Your task to perform on an android device: Open the map Image 0: 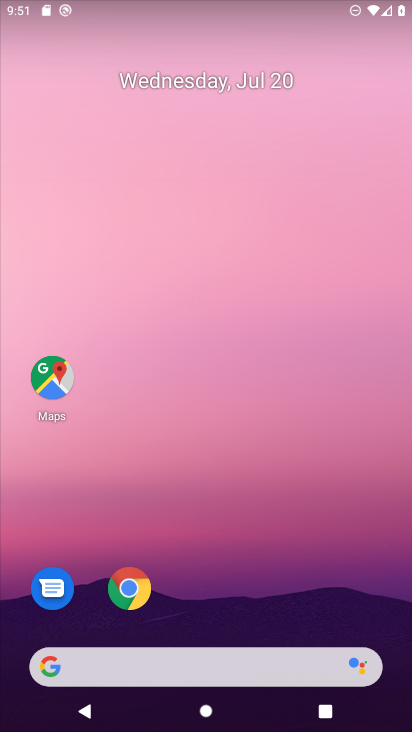
Step 0: press home button
Your task to perform on an android device: Open the map Image 1: 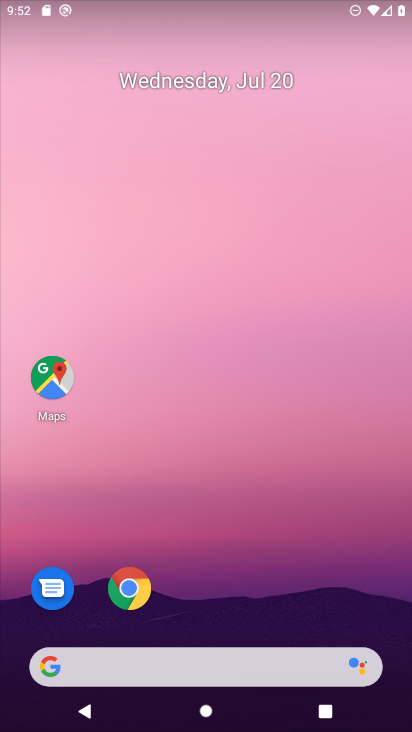
Step 1: click (51, 388)
Your task to perform on an android device: Open the map Image 2: 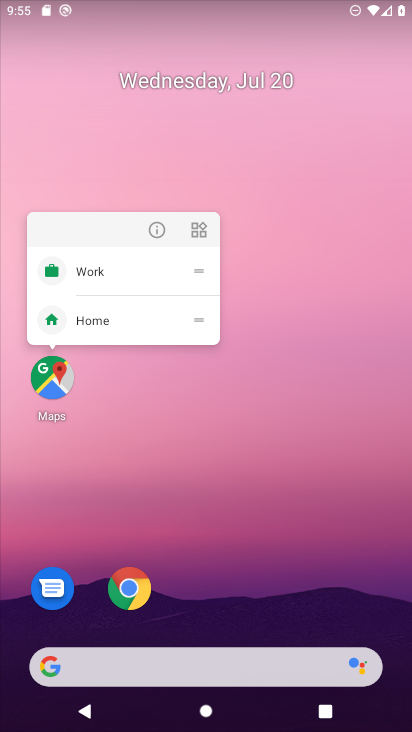
Step 2: click (54, 384)
Your task to perform on an android device: Open the map Image 3: 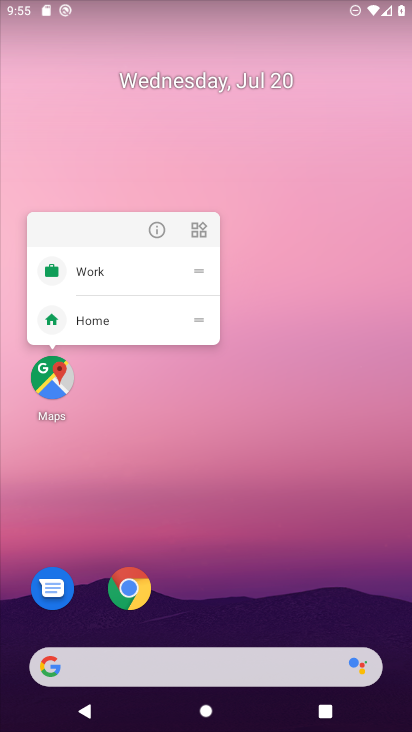
Step 3: click (52, 384)
Your task to perform on an android device: Open the map Image 4: 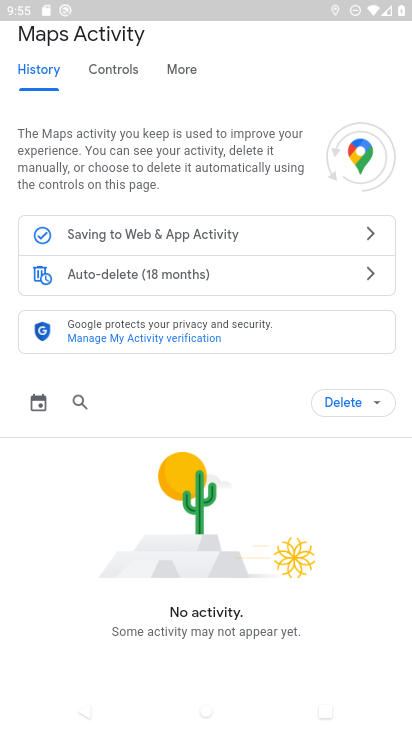
Step 4: task complete